Your task to perform on an android device: Open my contact list Image 0: 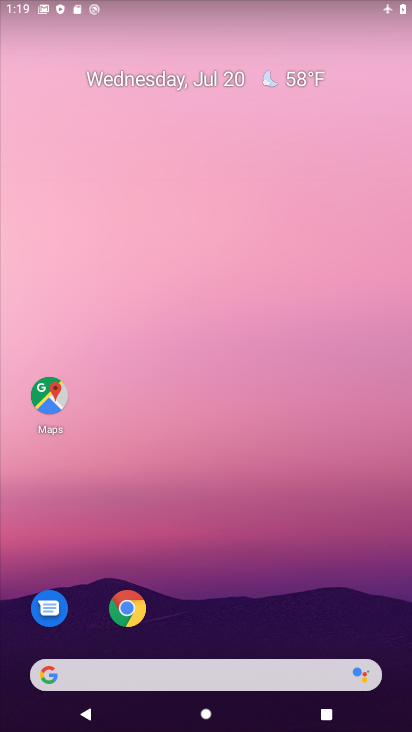
Step 0: drag from (239, 671) to (217, 148)
Your task to perform on an android device: Open my contact list Image 1: 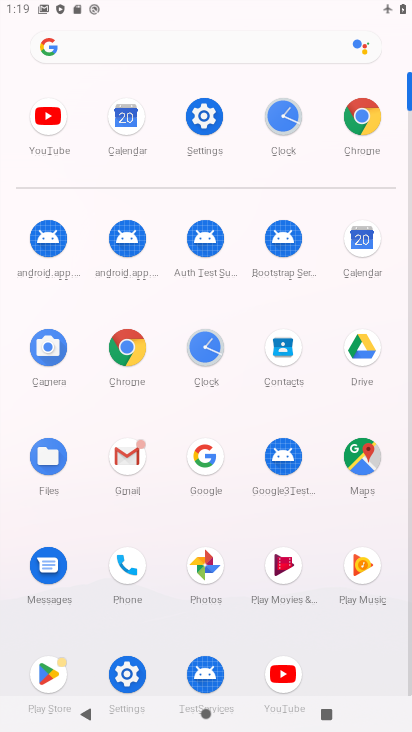
Step 1: click (285, 344)
Your task to perform on an android device: Open my contact list Image 2: 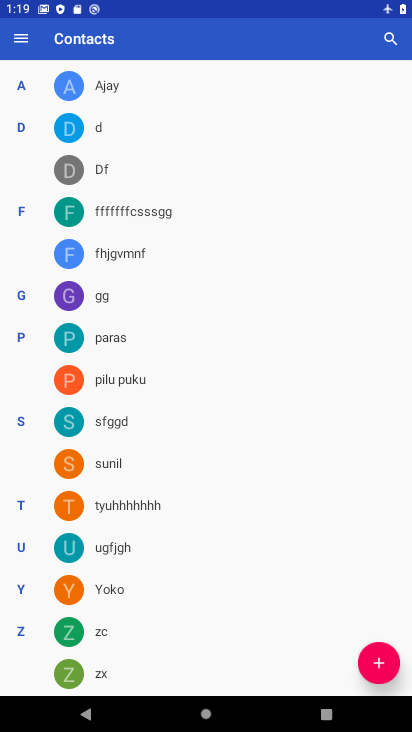
Step 2: task complete